Your task to perform on an android device: find photos in the google photos app Image 0: 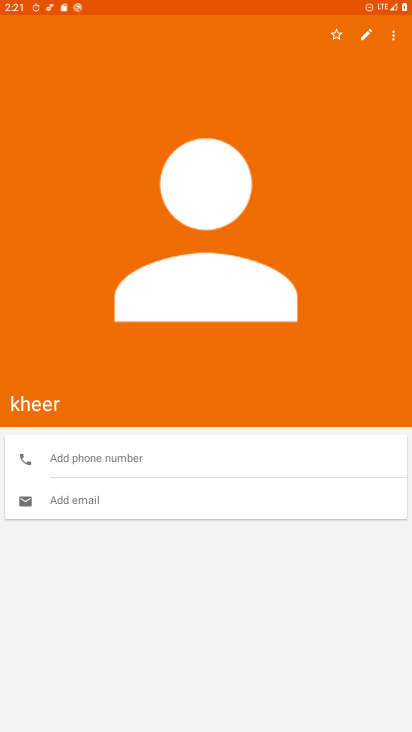
Step 0: press home button
Your task to perform on an android device: find photos in the google photos app Image 1: 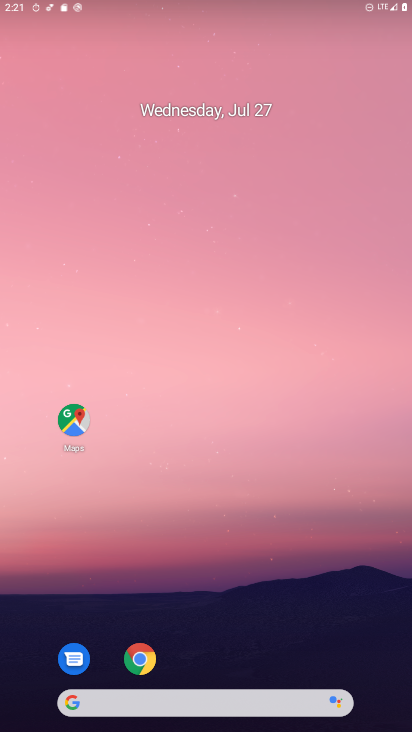
Step 1: drag from (315, 638) to (191, 32)
Your task to perform on an android device: find photos in the google photos app Image 2: 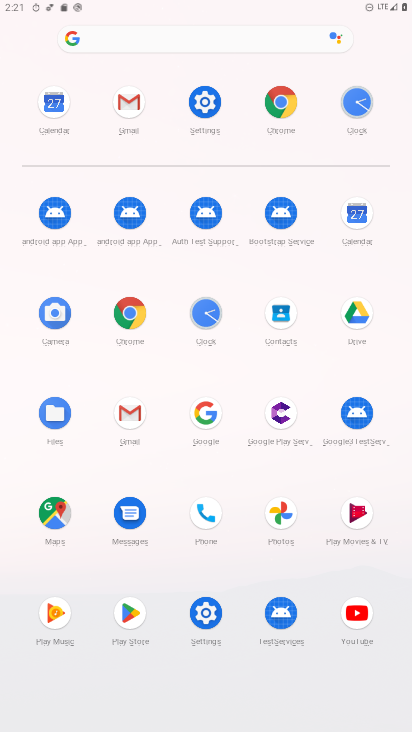
Step 2: click (283, 513)
Your task to perform on an android device: find photos in the google photos app Image 3: 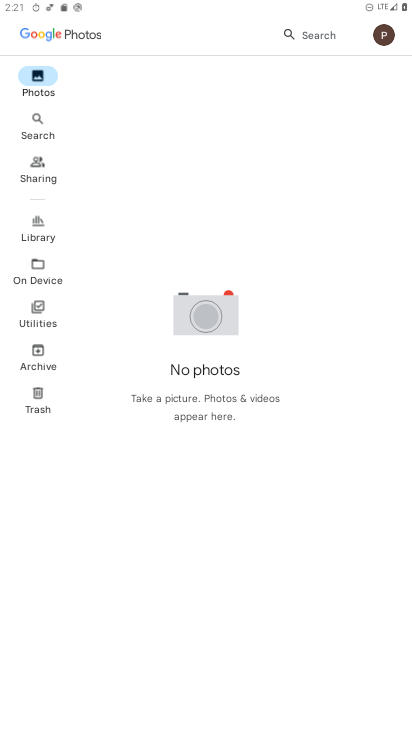
Step 3: task complete